Your task to perform on an android device: Go to network settings Image 0: 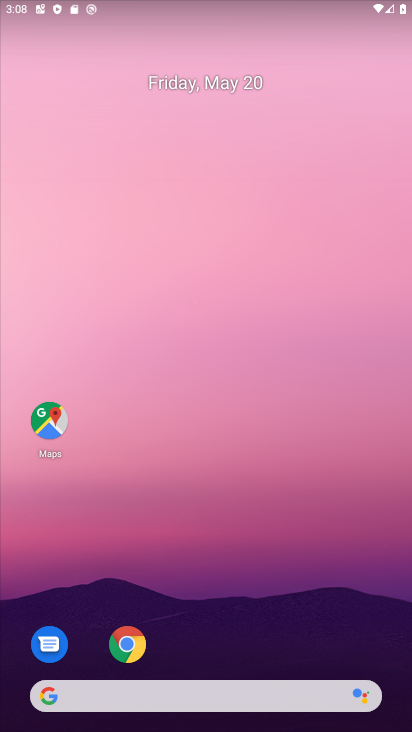
Step 0: drag from (240, 538) to (133, 112)
Your task to perform on an android device: Go to network settings Image 1: 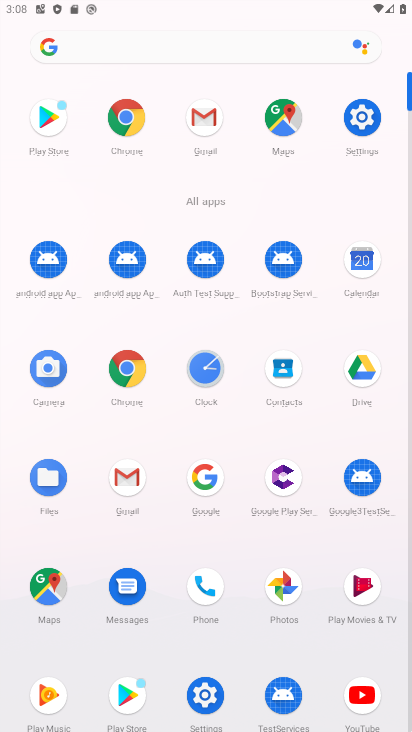
Step 1: click (373, 150)
Your task to perform on an android device: Go to network settings Image 2: 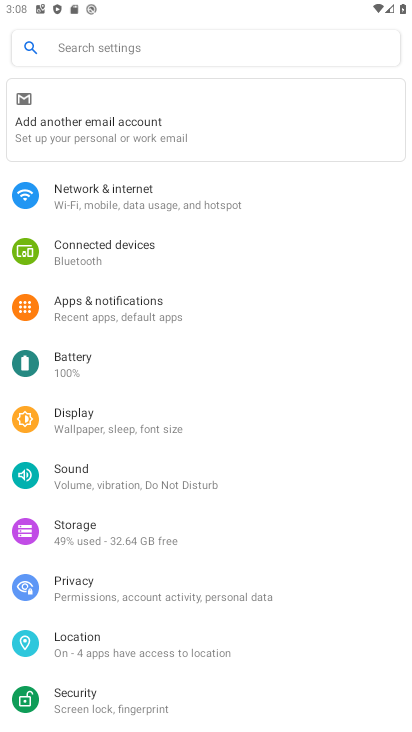
Step 2: click (219, 216)
Your task to perform on an android device: Go to network settings Image 3: 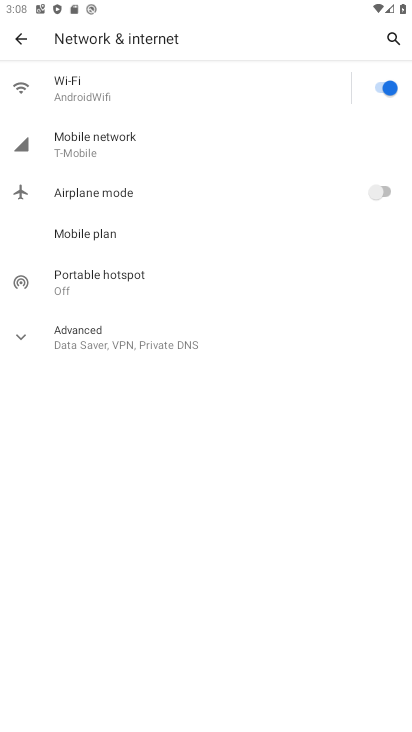
Step 3: task complete